Your task to perform on an android device: turn on improve location accuracy Image 0: 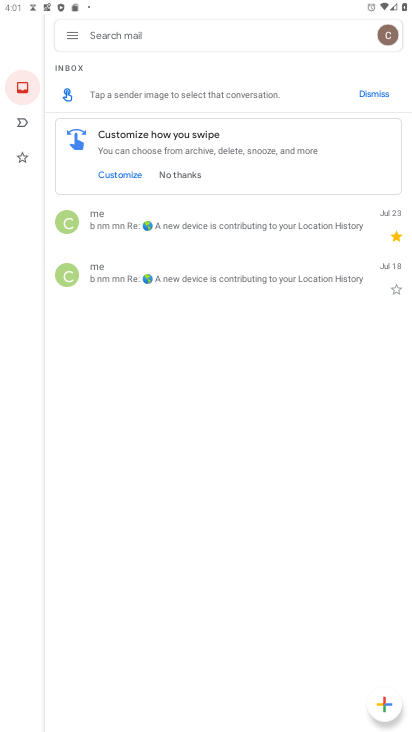
Step 0: press home button
Your task to perform on an android device: turn on improve location accuracy Image 1: 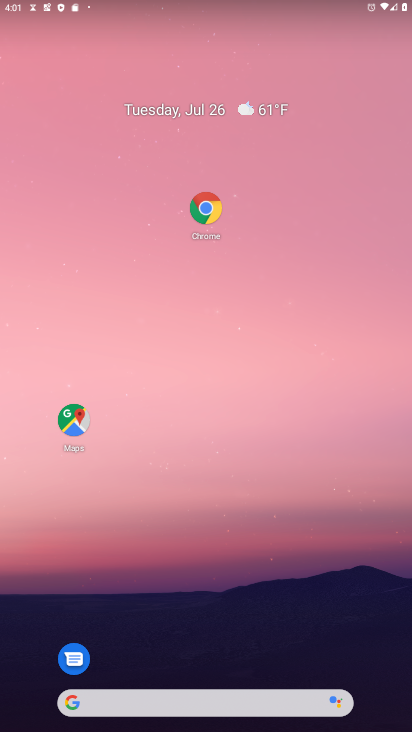
Step 1: drag from (154, 576) to (113, 218)
Your task to perform on an android device: turn on improve location accuracy Image 2: 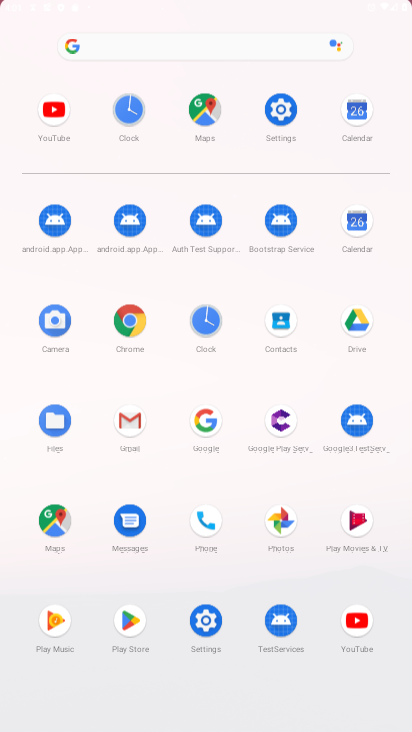
Step 2: click (113, 218)
Your task to perform on an android device: turn on improve location accuracy Image 3: 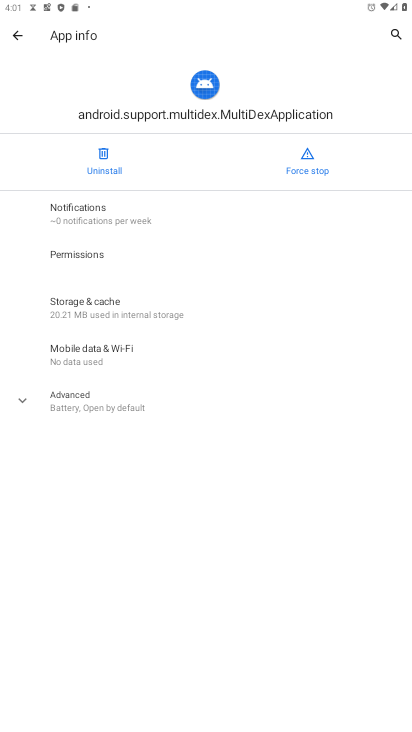
Step 3: click (206, 130)
Your task to perform on an android device: turn on improve location accuracy Image 4: 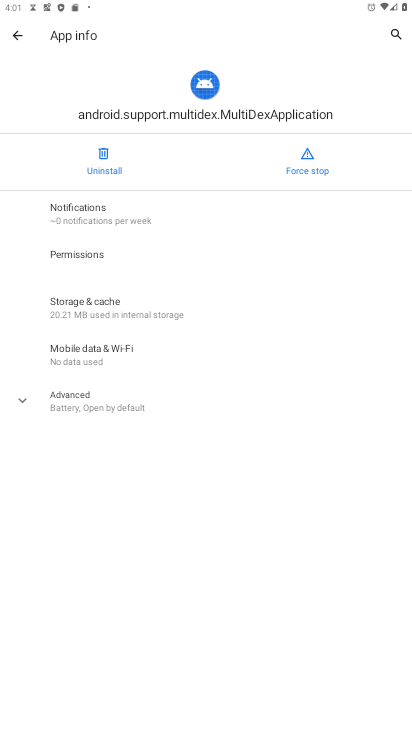
Step 4: click (206, 130)
Your task to perform on an android device: turn on improve location accuracy Image 5: 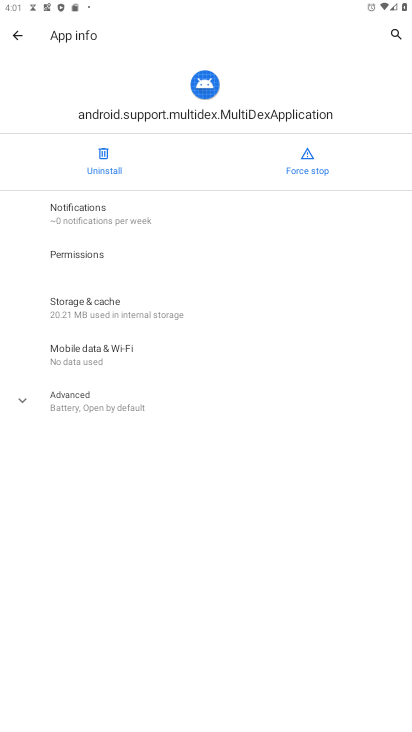
Step 5: click (5, 33)
Your task to perform on an android device: turn on improve location accuracy Image 6: 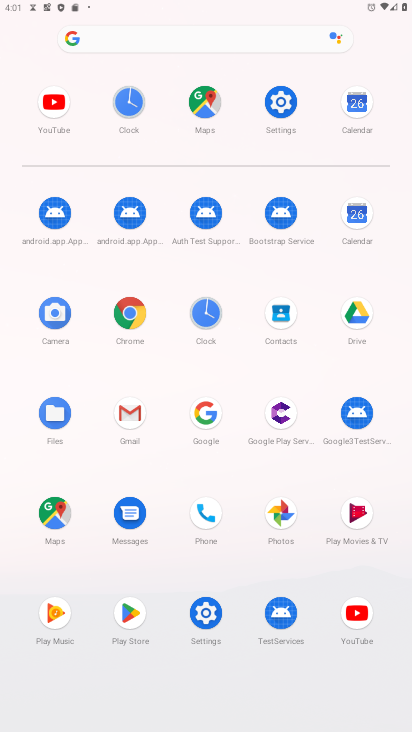
Step 6: click (209, 622)
Your task to perform on an android device: turn on improve location accuracy Image 7: 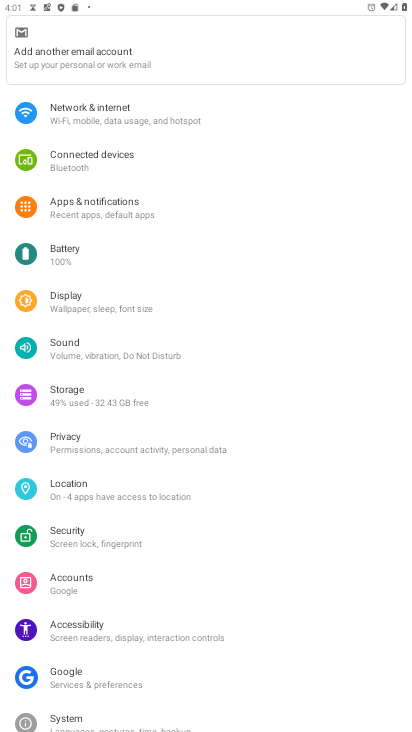
Step 7: click (80, 487)
Your task to perform on an android device: turn on improve location accuracy Image 8: 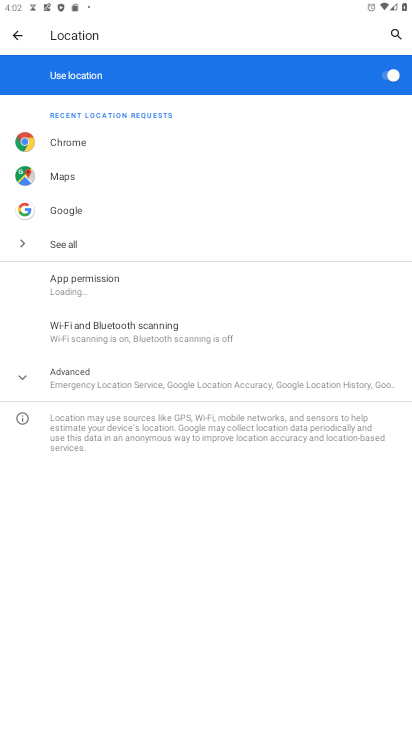
Step 8: click (118, 379)
Your task to perform on an android device: turn on improve location accuracy Image 9: 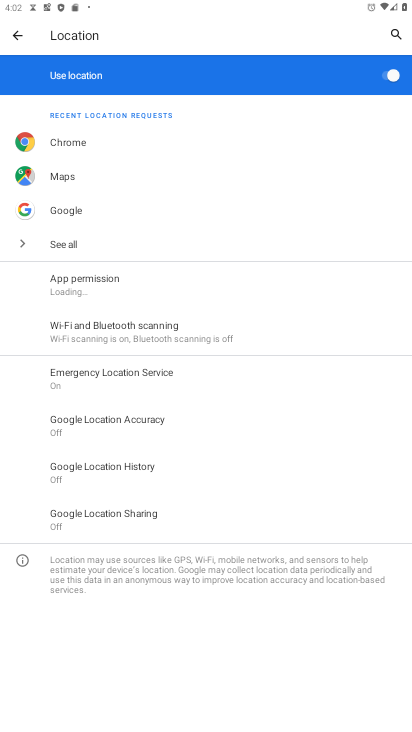
Step 9: click (143, 417)
Your task to perform on an android device: turn on improve location accuracy Image 10: 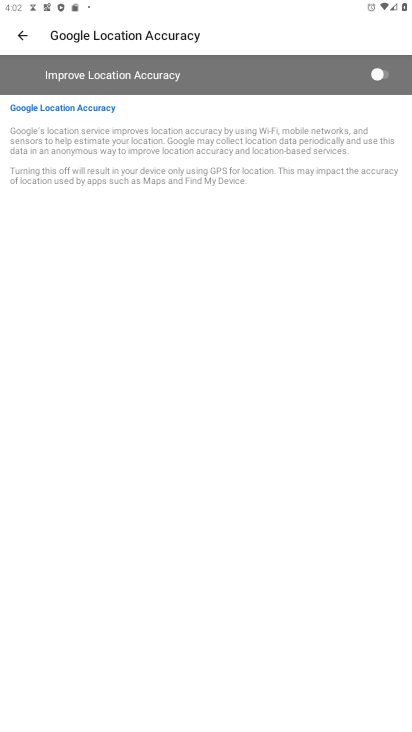
Step 10: click (394, 77)
Your task to perform on an android device: turn on improve location accuracy Image 11: 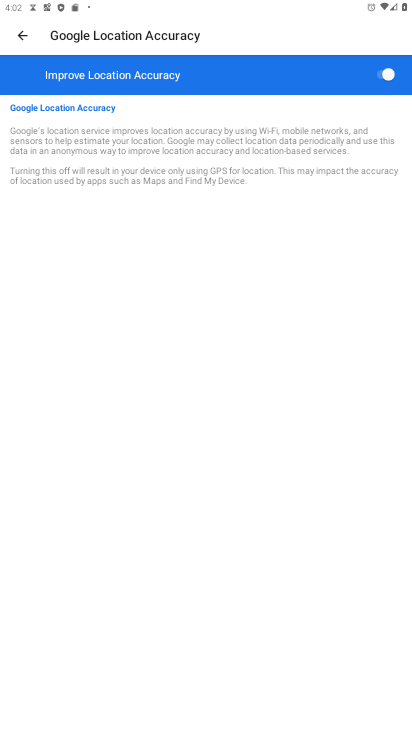
Step 11: task complete